Your task to perform on an android device: Show me recent news Image 0: 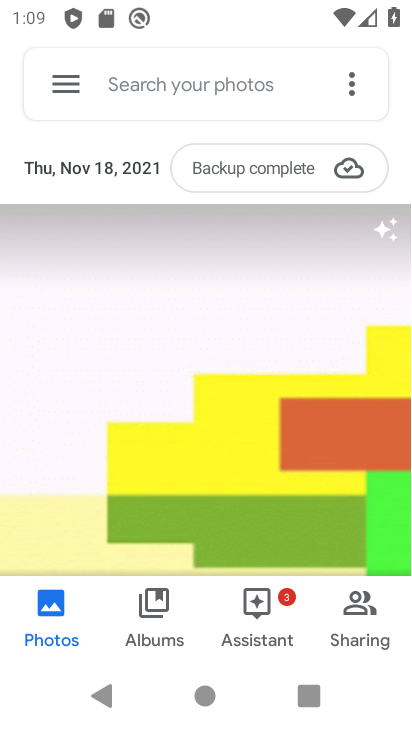
Step 0: press home button
Your task to perform on an android device: Show me recent news Image 1: 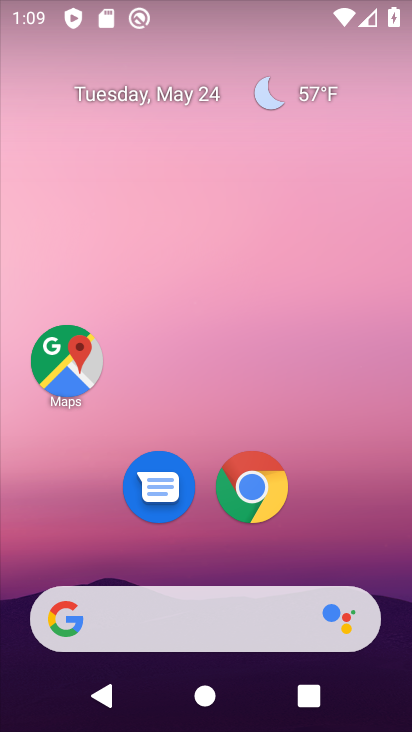
Step 1: drag from (2, 260) to (71, 502)
Your task to perform on an android device: Show me recent news Image 2: 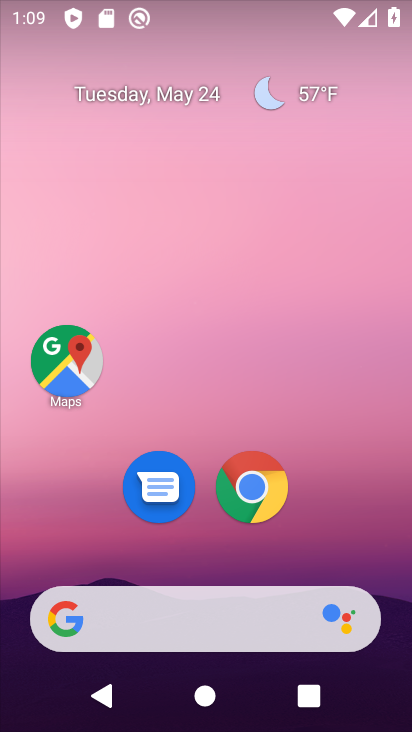
Step 2: drag from (5, 257) to (411, 261)
Your task to perform on an android device: Show me recent news Image 3: 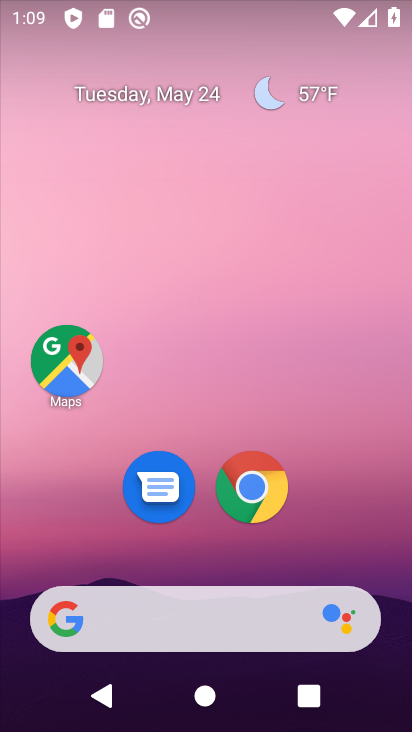
Step 3: drag from (3, 233) to (373, 281)
Your task to perform on an android device: Show me recent news Image 4: 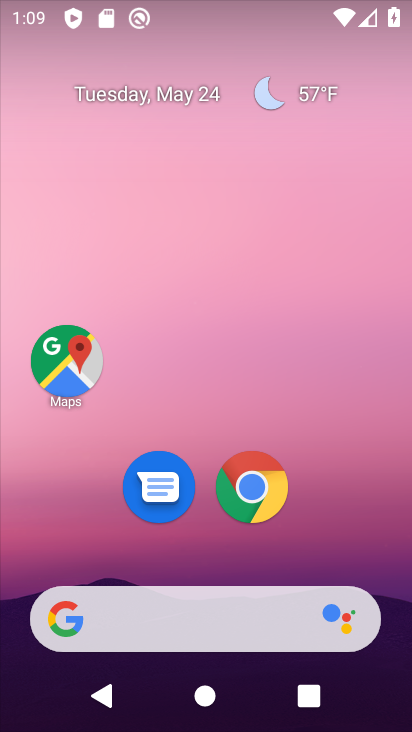
Step 4: drag from (0, 270) to (393, 473)
Your task to perform on an android device: Show me recent news Image 5: 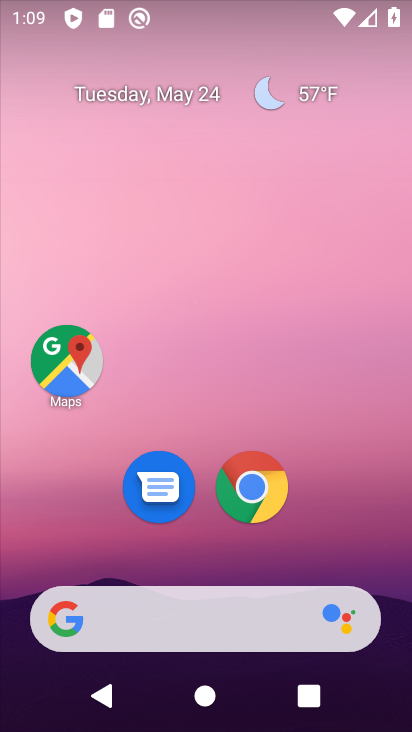
Step 5: drag from (4, 419) to (359, 287)
Your task to perform on an android device: Show me recent news Image 6: 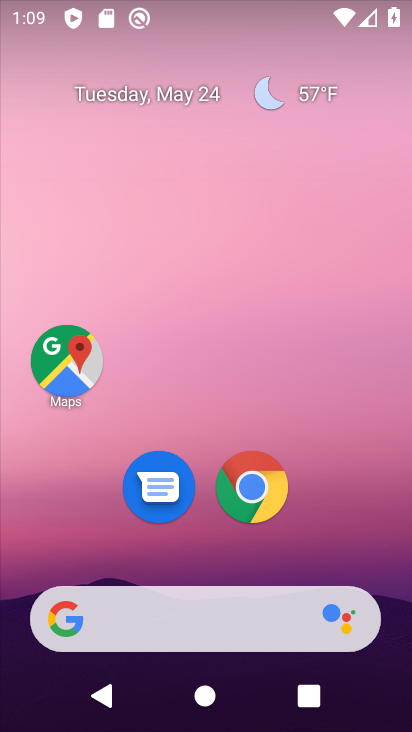
Step 6: drag from (32, 195) to (405, 551)
Your task to perform on an android device: Show me recent news Image 7: 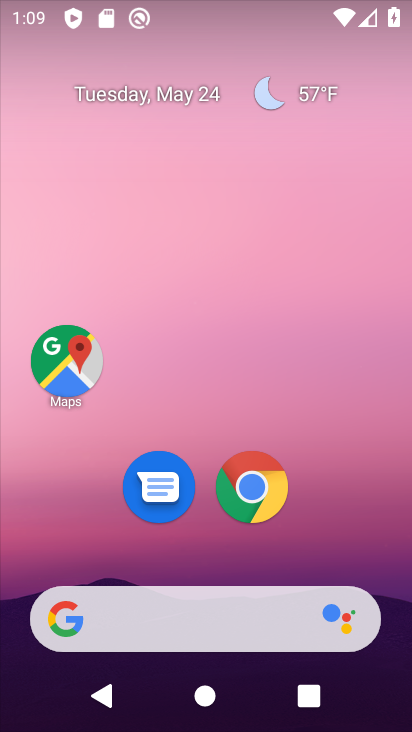
Step 7: drag from (229, 729) to (234, 137)
Your task to perform on an android device: Show me recent news Image 8: 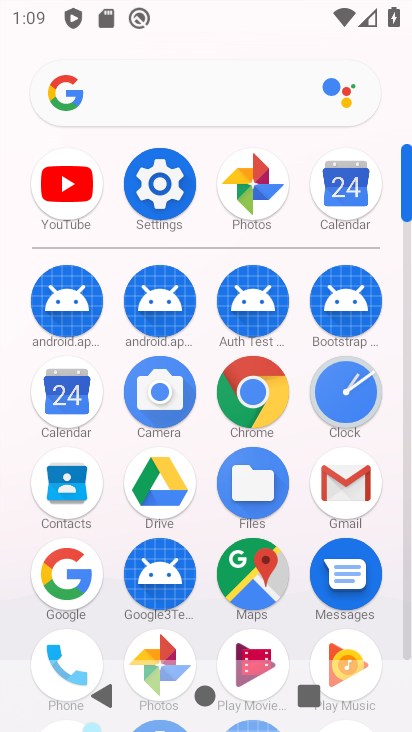
Step 8: click (61, 569)
Your task to perform on an android device: Show me recent news Image 9: 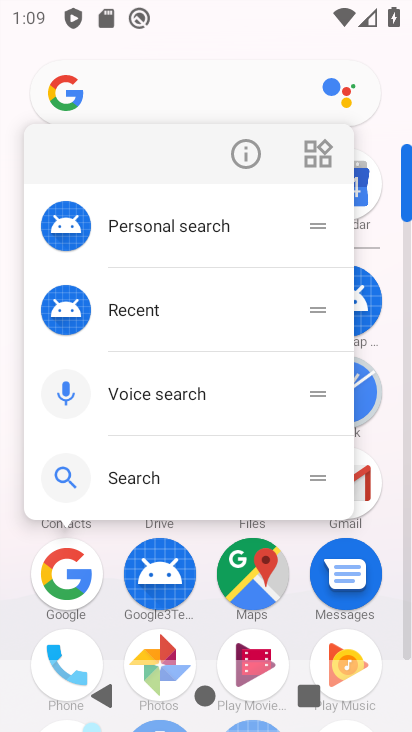
Step 9: click (72, 572)
Your task to perform on an android device: Show me recent news Image 10: 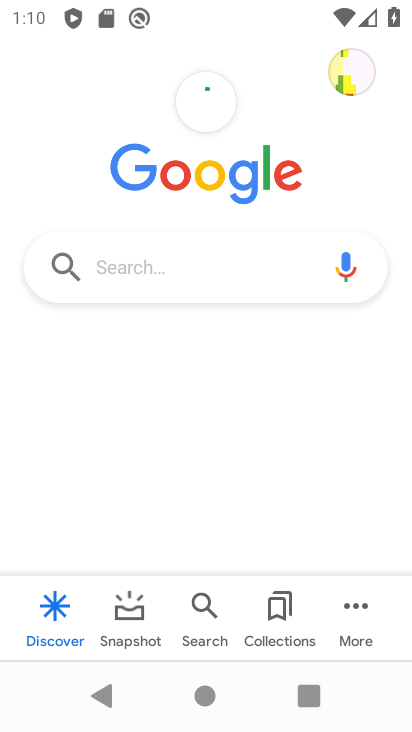
Step 10: task complete